Your task to perform on an android device: Is it going to rain tomorrow? Image 0: 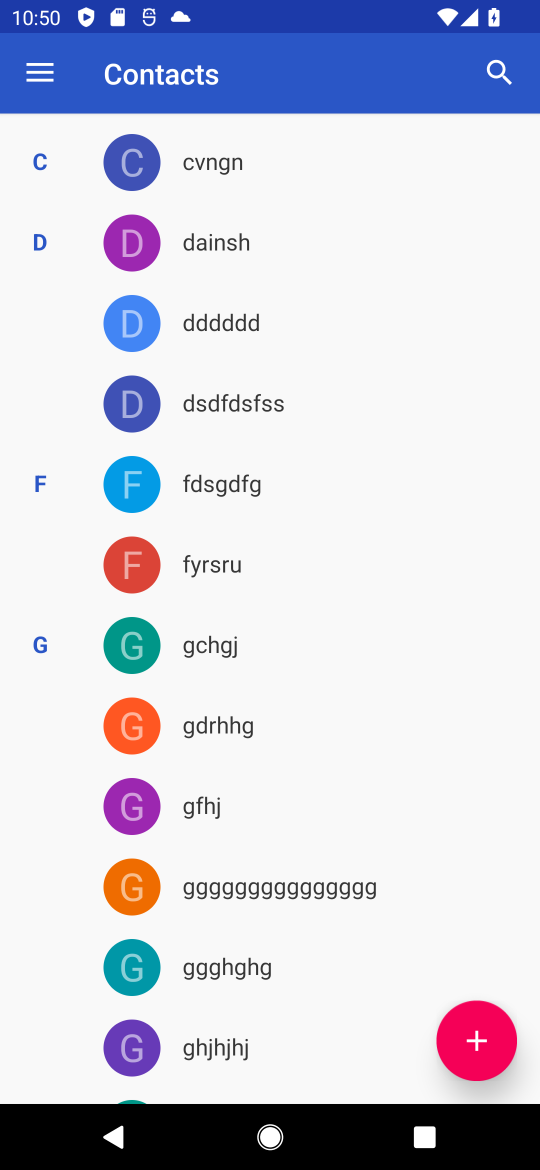
Step 0: press home button
Your task to perform on an android device: Is it going to rain tomorrow? Image 1: 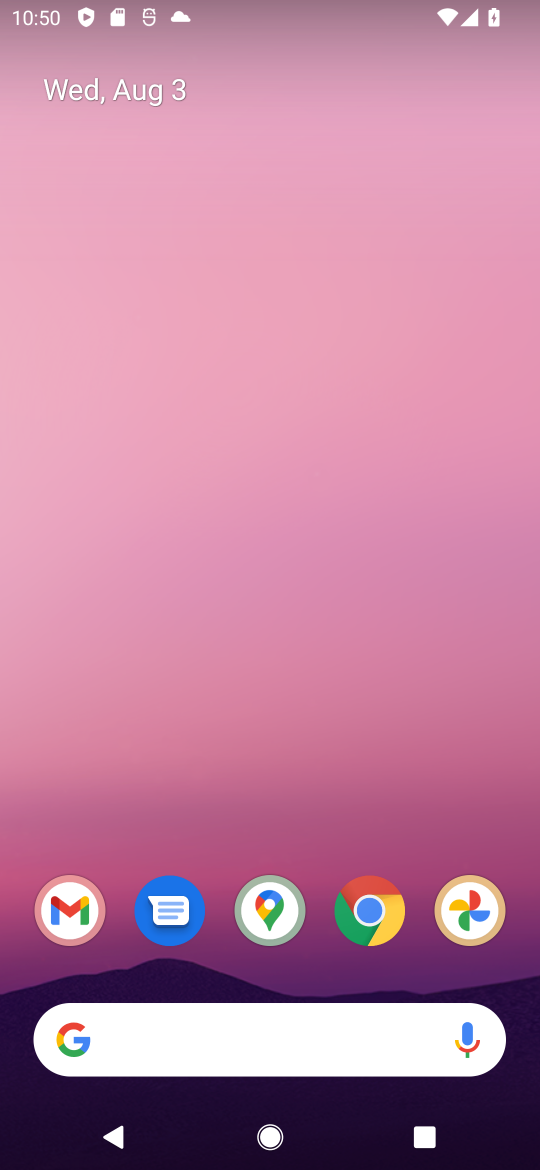
Step 1: click (217, 1033)
Your task to perform on an android device: Is it going to rain tomorrow? Image 2: 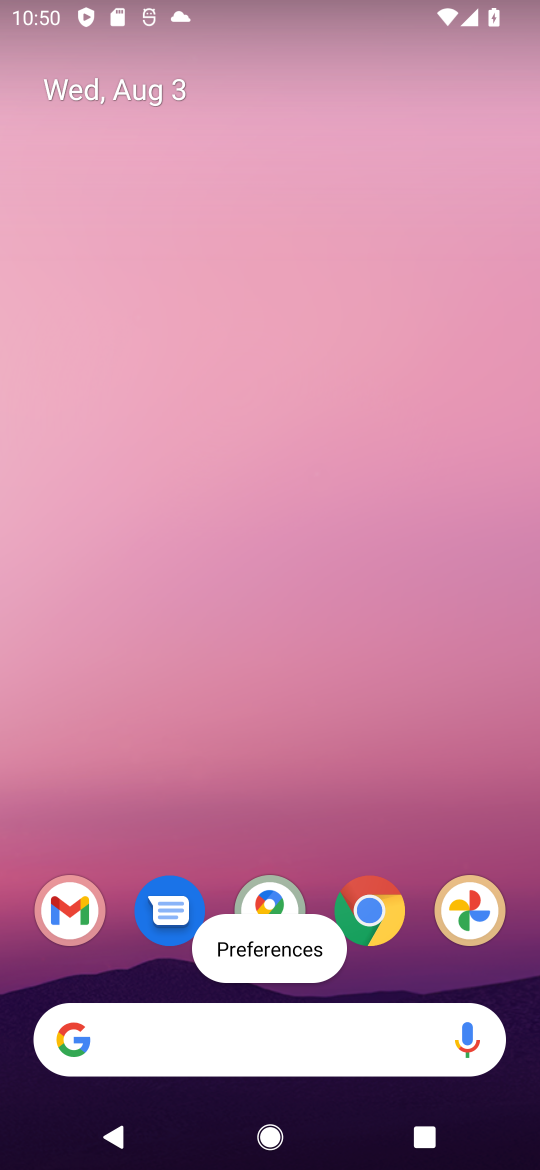
Step 2: drag from (304, 810) to (344, 2)
Your task to perform on an android device: Is it going to rain tomorrow? Image 3: 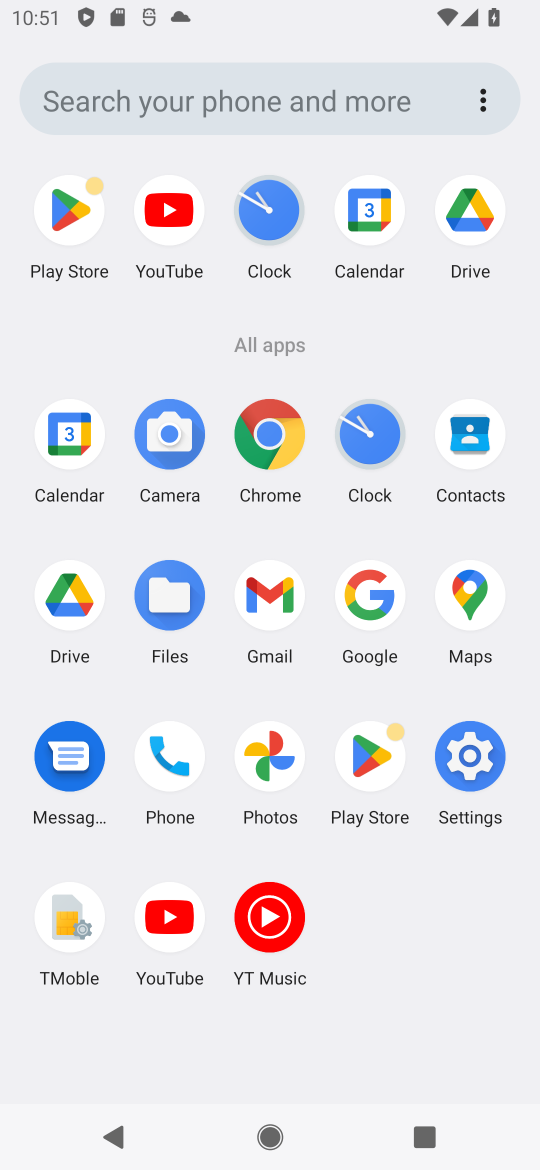
Step 3: press back button
Your task to perform on an android device: Is it going to rain tomorrow? Image 4: 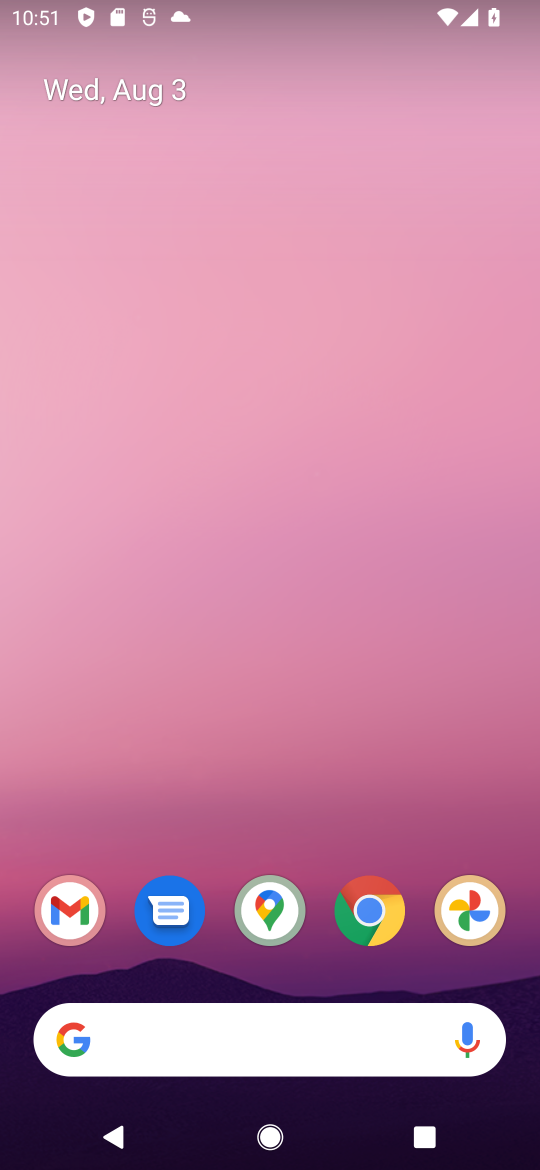
Step 4: click (191, 1018)
Your task to perform on an android device: Is it going to rain tomorrow? Image 5: 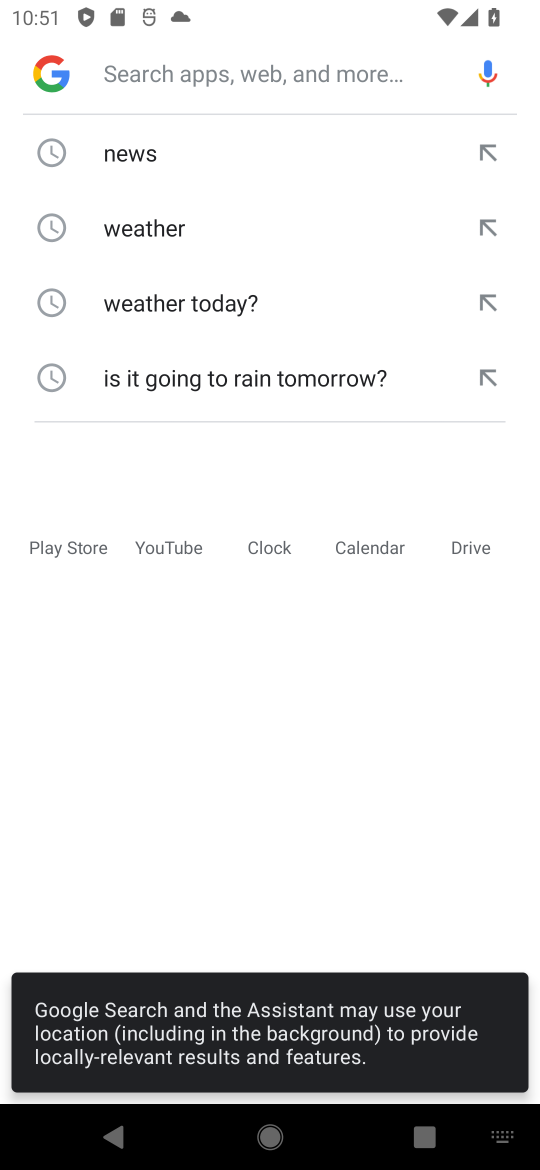
Step 5: click (177, 228)
Your task to perform on an android device: Is it going to rain tomorrow? Image 6: 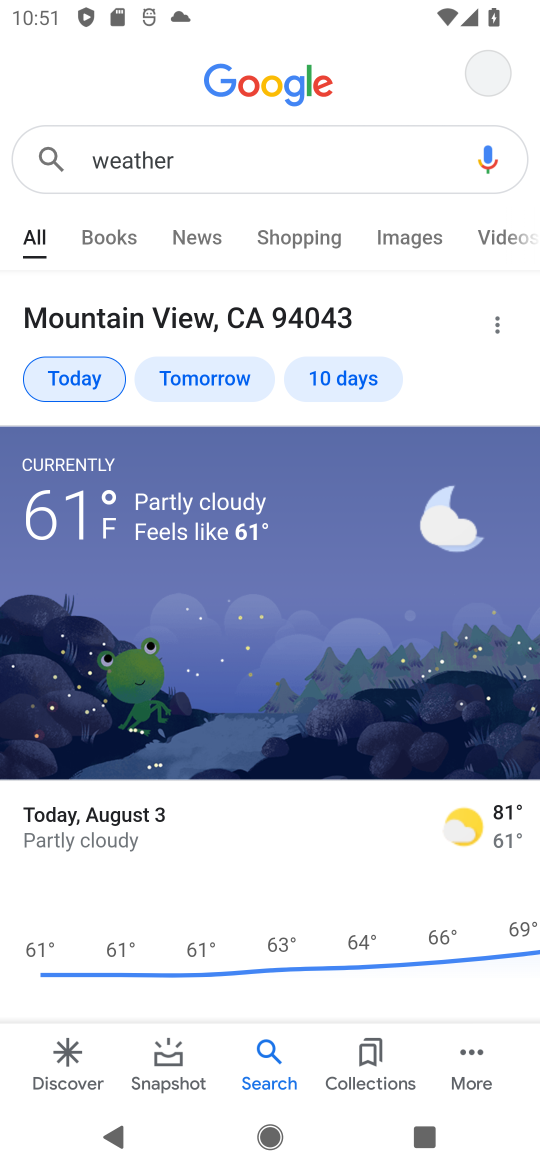
Step 6: drag from (376, 917) to (438, 398)
Your task to perform on an android device: Is it going to rain tomorrow? Image 7: 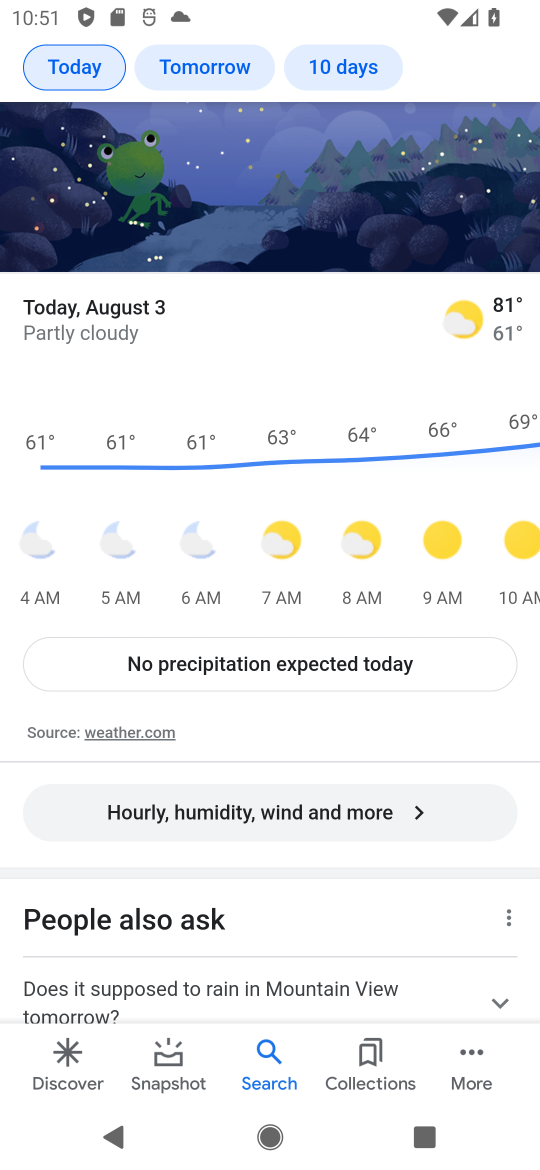
Step 7: click (193, 51)
Your task to perform on an android device: Is it going to rain tomorrow? Image 8: 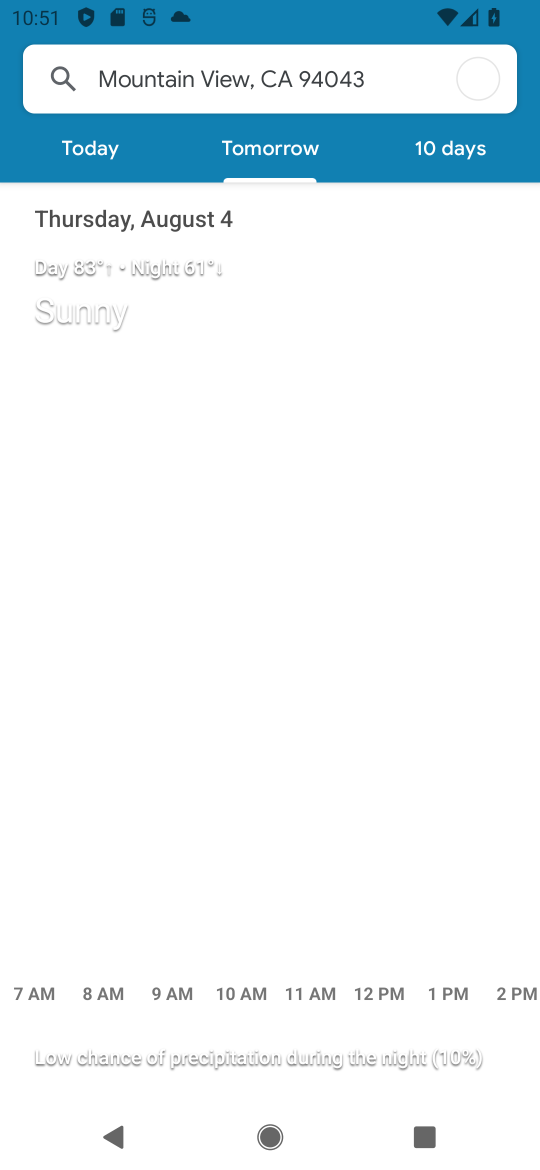
Step 8: drag from (459, 974) to (106, 961)
Your task to perform on an android device: Is it going to rain tomorrow? Image 9: 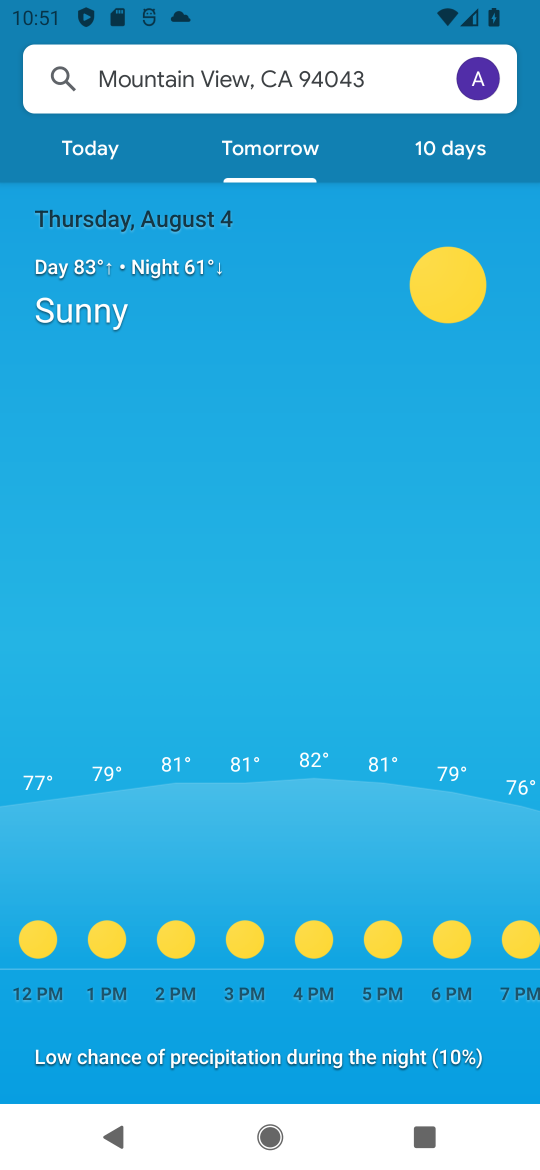
Step 9: drag from (476, 956) to (116, 936)
Your task to perform on an android device: Is it going to rain tomorrow? Image 10: 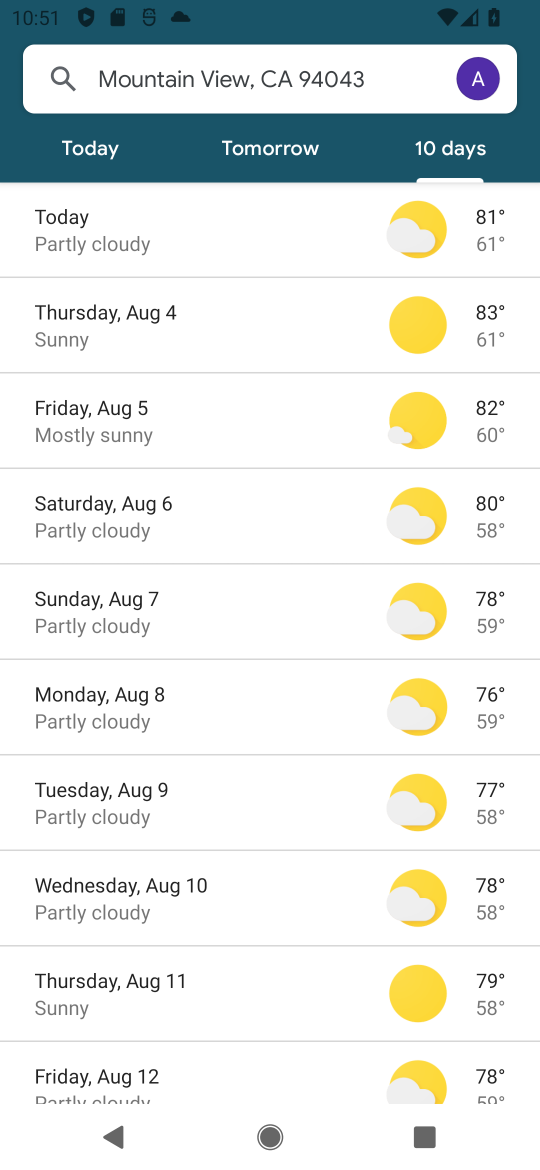
Step 10: click (244, 157)
Your task to perform on an android device: Is it going to rain tomorrow? Image 11: 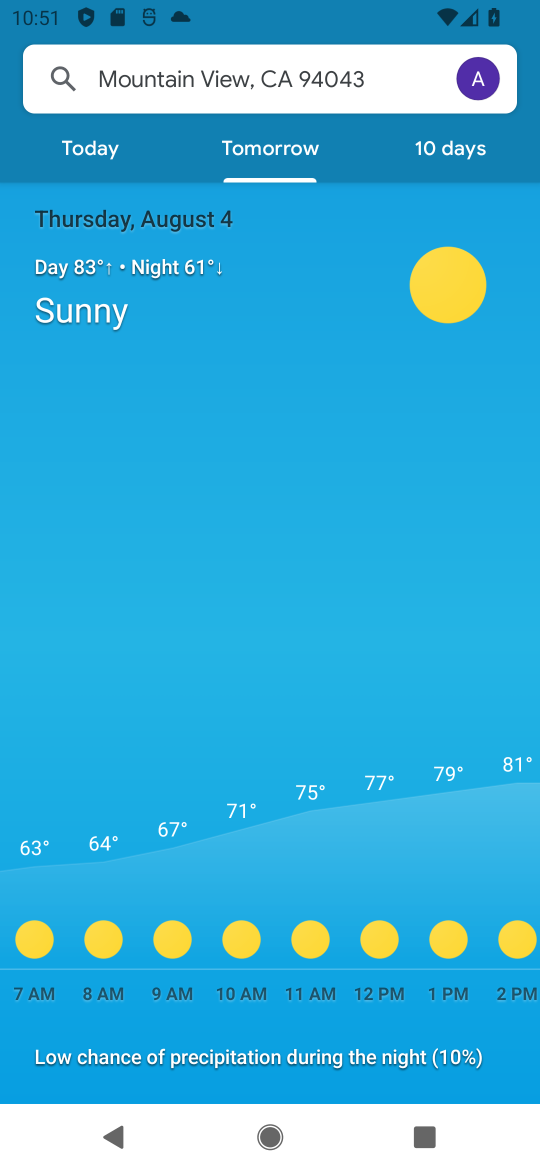
Step 11: task complete